Your task to perform on an android device: toggle sleep mode Image 0: 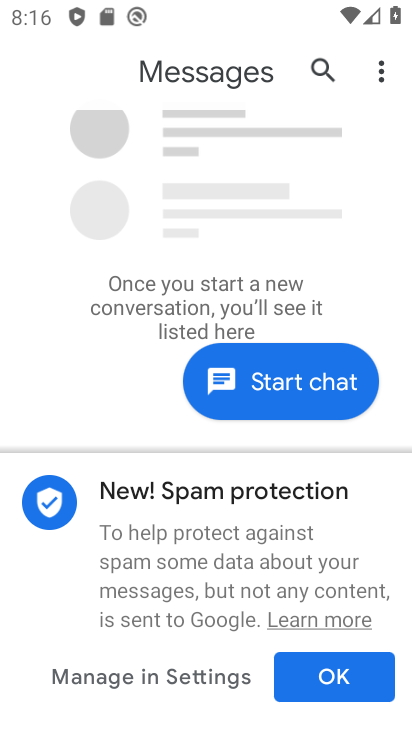
Step 0: press home button
Your task to perform on an android device: toggle sleep mode Image 1: 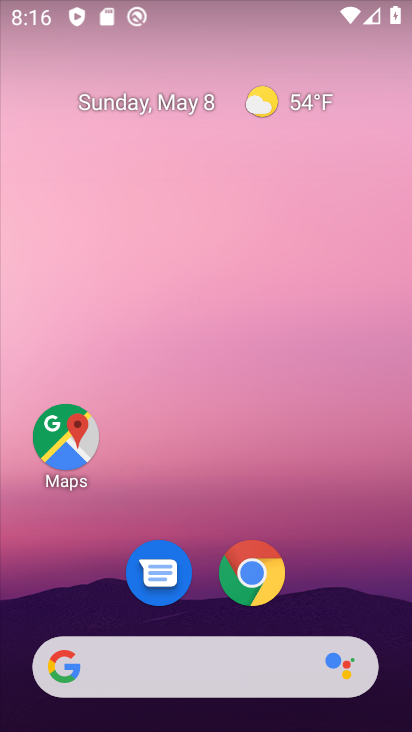
Step 1: drag from (187, 718) to (180, 315)
Your task to perform on an android device: toggle sleep mode Image 2: 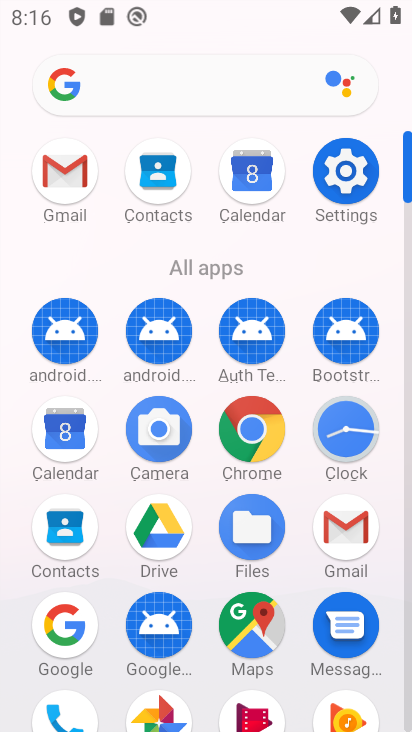
Step 2: click (343, 167)
Your task to perform on an android device: toggle sleep mode Image 3: 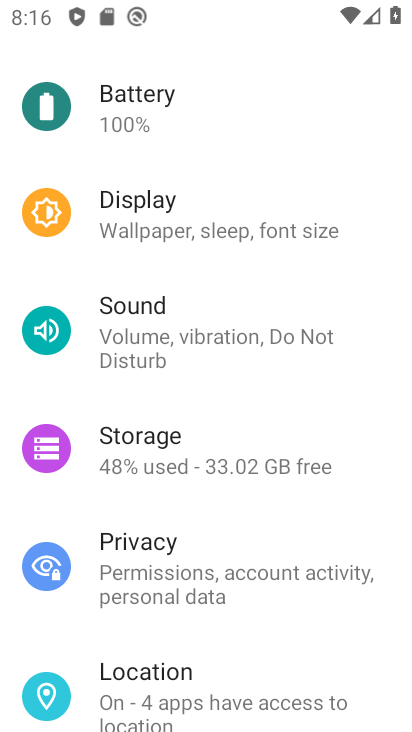
Step 3: click (217, 235)
Your task to perform on an android device: toggle sleep mode Image 4: 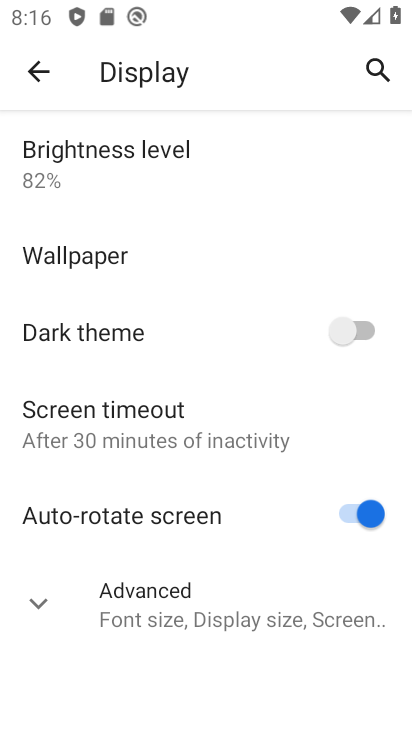
Step 4: click (34, 71)
Your task to perform on an android device: toggle sleep mode Image 5: 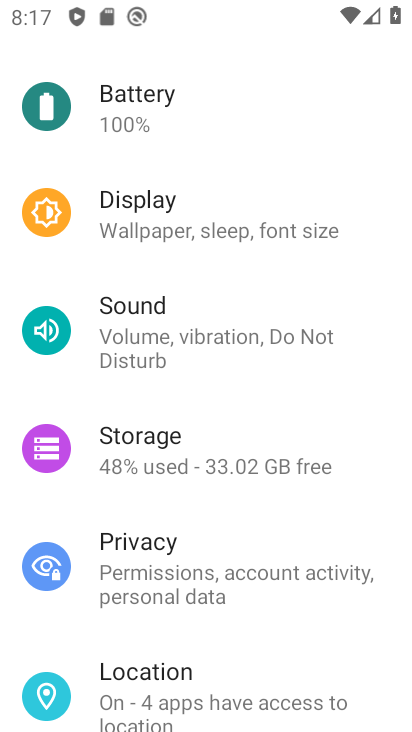
Step 5: task complete